Your task to perform on an android device: open app "Google Drive" (install if not already installed) Image 0: 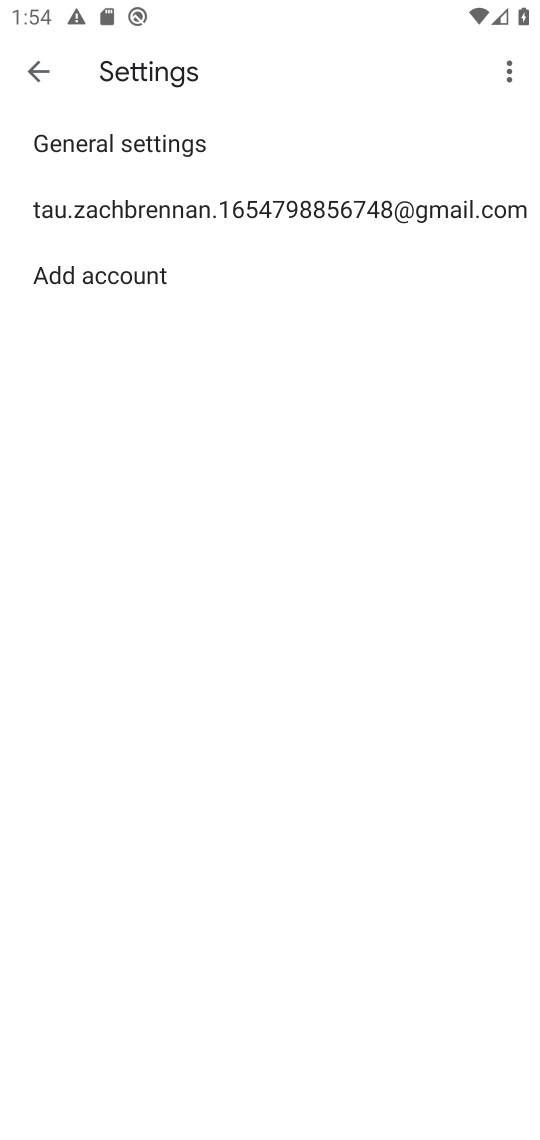
Step 0: press home button
Your task to perform on an android device: open app "Google Drive" (install if not already installed) Image 1: 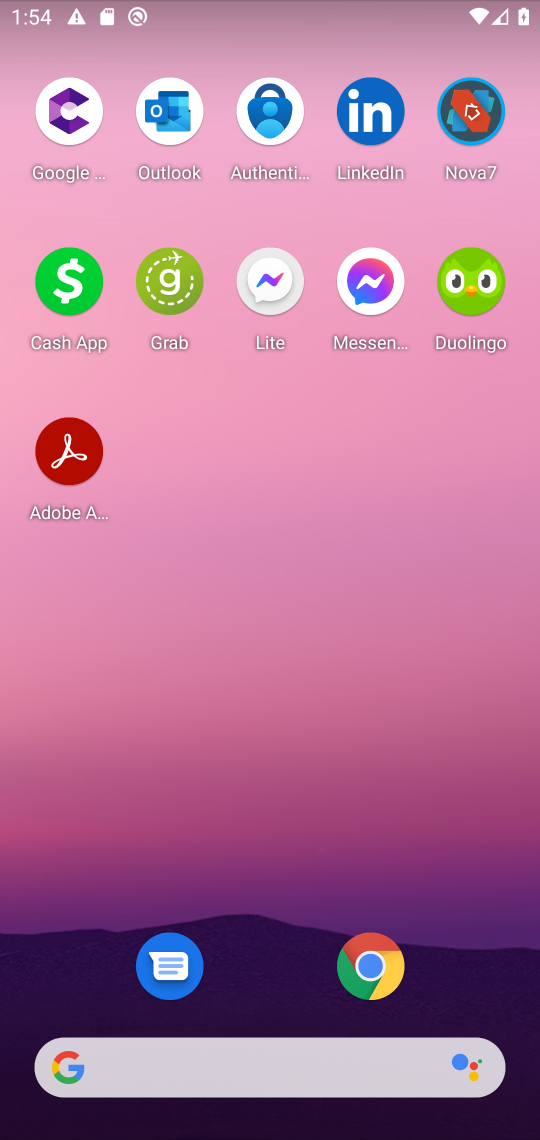
Step 1: drag from (273, 1013) to (274, 193)
Your task to perform on an android device: open app "Google Drive" (install if not already installed) Image 2: 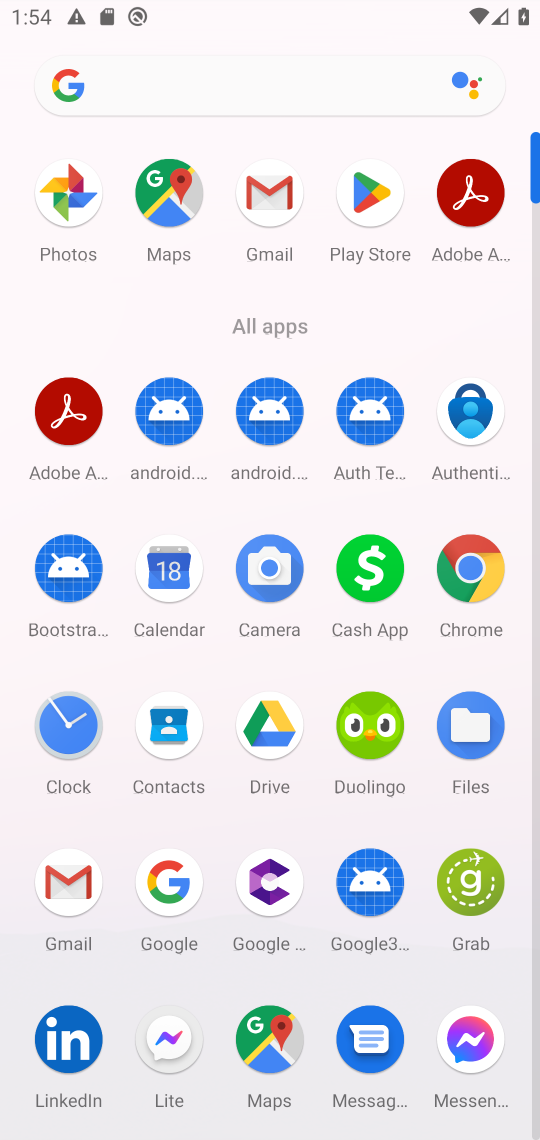
Step 2: click (360, 190)
Your task to perform on an android device: open app "Google Drive" (install if not already installed) Image 3: 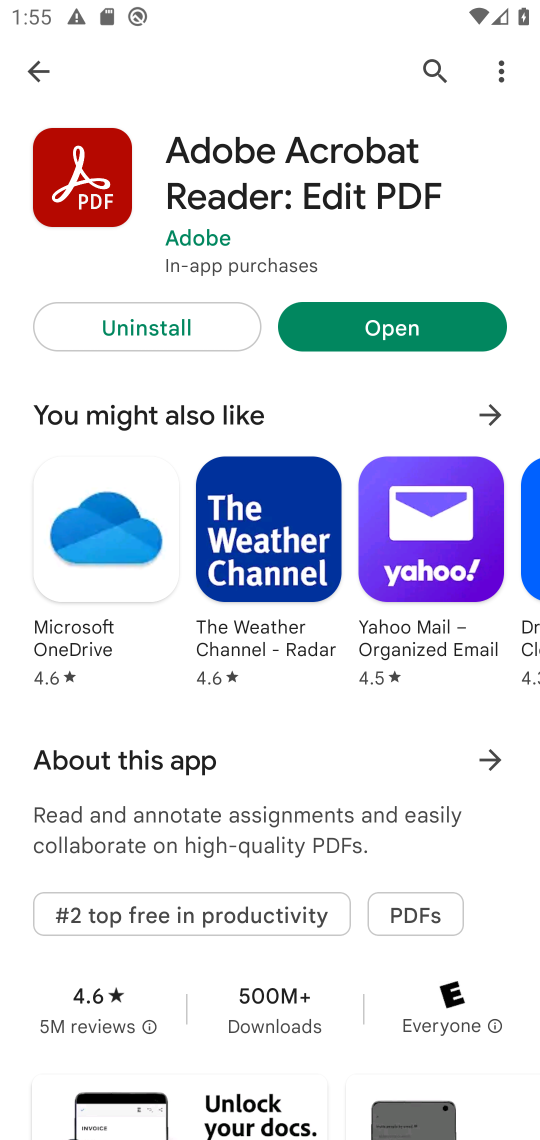
Step 3: click (421, 72)
Your task to perform on an android device: open app "Google Drive" (install if not already installed) Image 4: 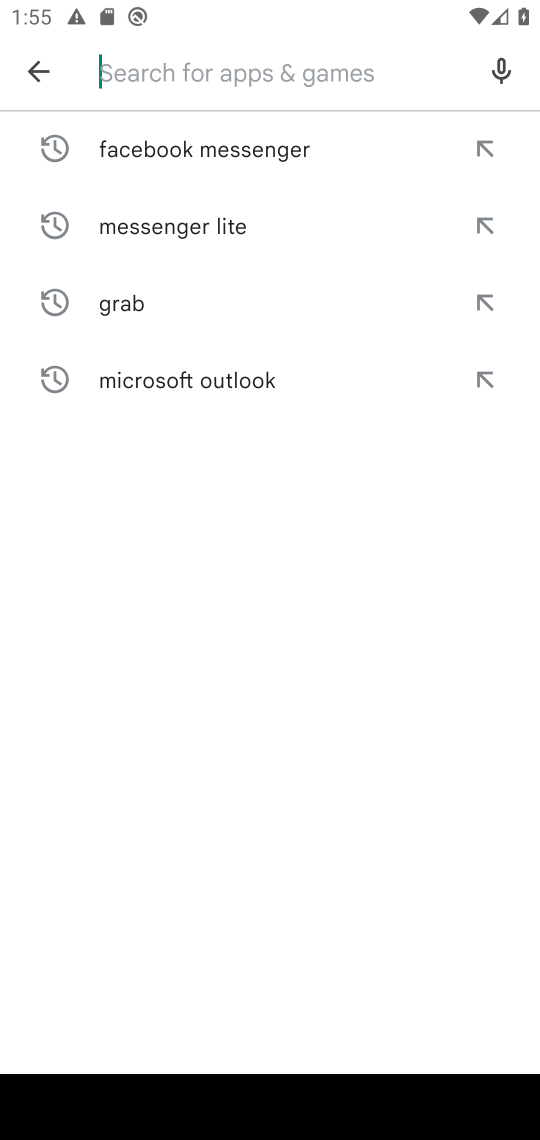
Step 4: type "Google Drive"
Your task to perform on an android device: open app "Google Drive" (install if not already installed) Image 5: 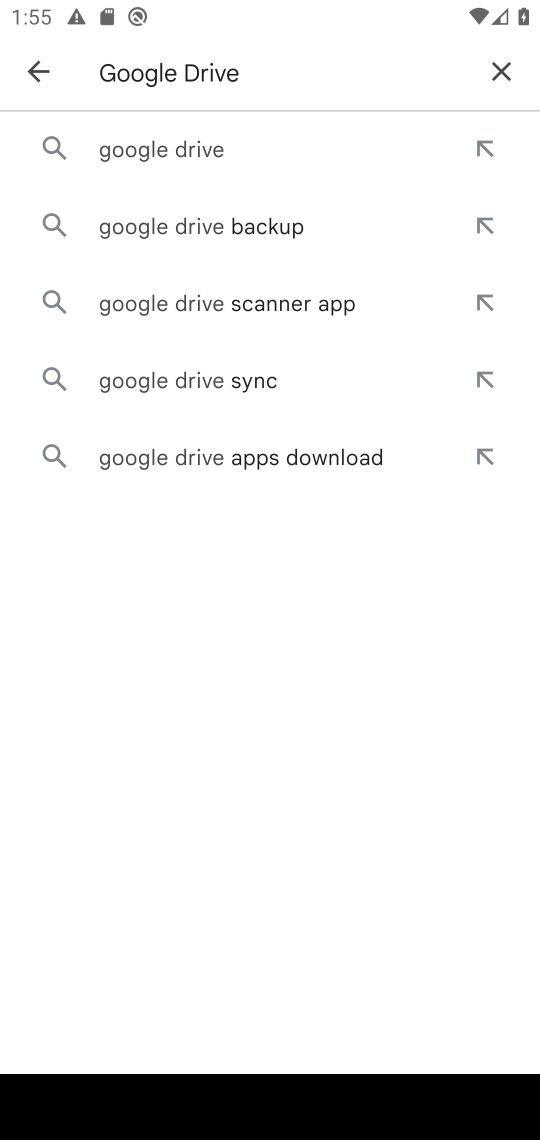
Step 5: click (208, 153)
Your task to perform on an android device: open app "Google Drive" (install if not already installed) Image 6: 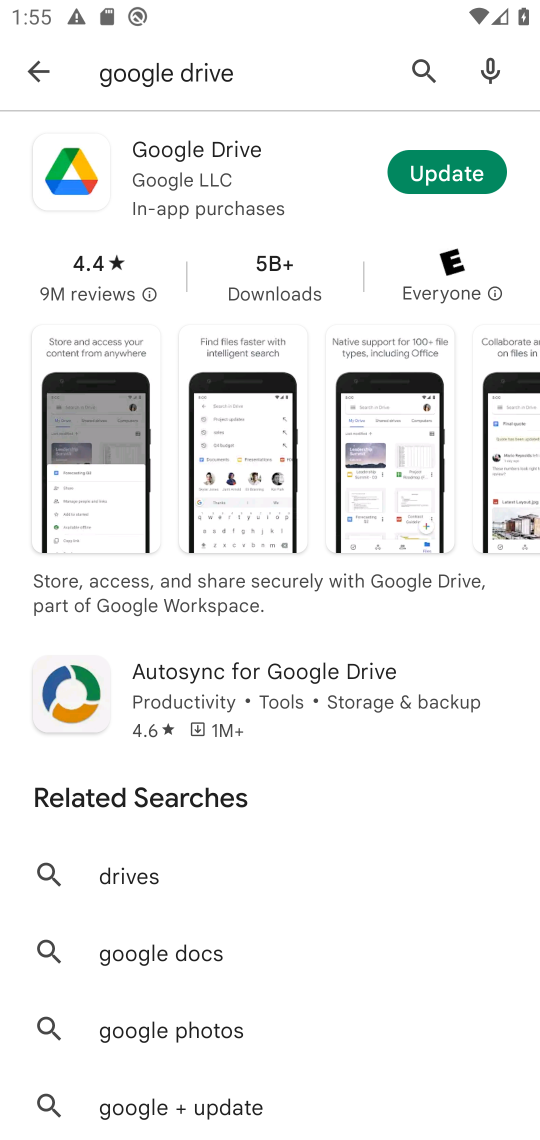
Step 6: click (424, 160)
Your task to perform on an android device: open app "Google Drive" (install if not already installed) Image 7: 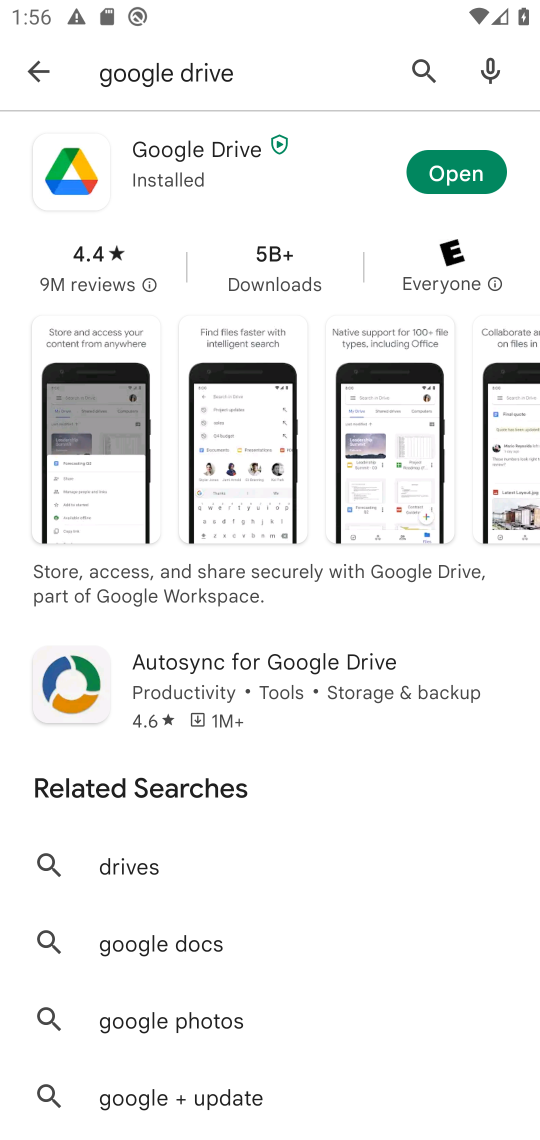
Step 7: click (452, 174)
Your task to perform on an android device: open app "Google Drive" (install if not already installed) Image 8: 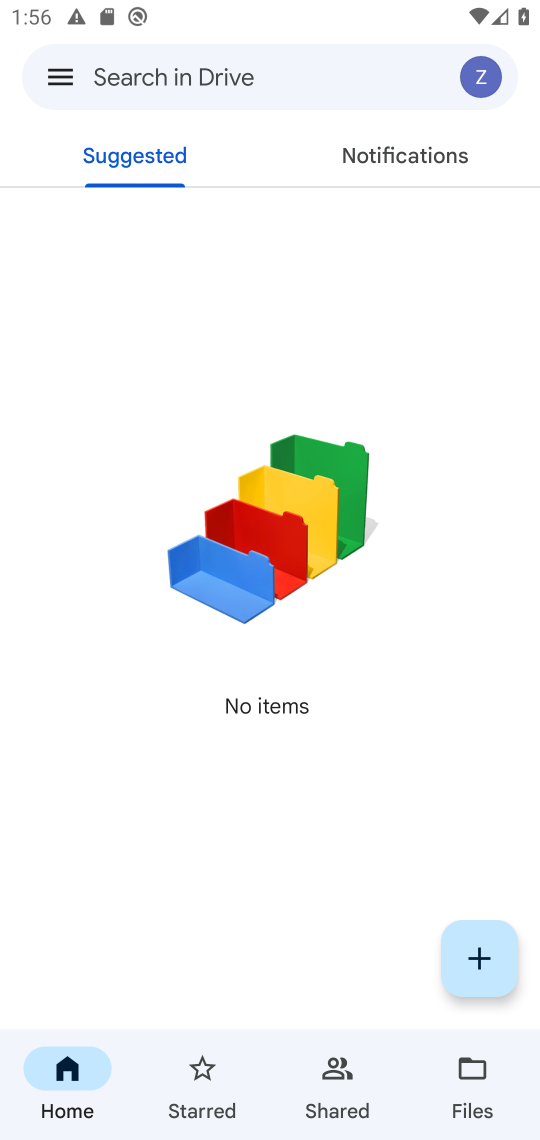
Step 8: task complete